Your task to perform on an android device: What's on my calendar tomorrow? Image 0: 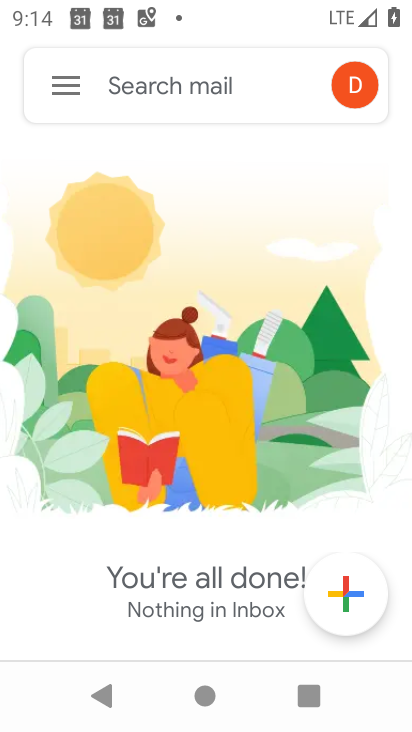
Step 0: press home button
Your task to perform on an android device: What's on my calendar tomorrow? Image 1: 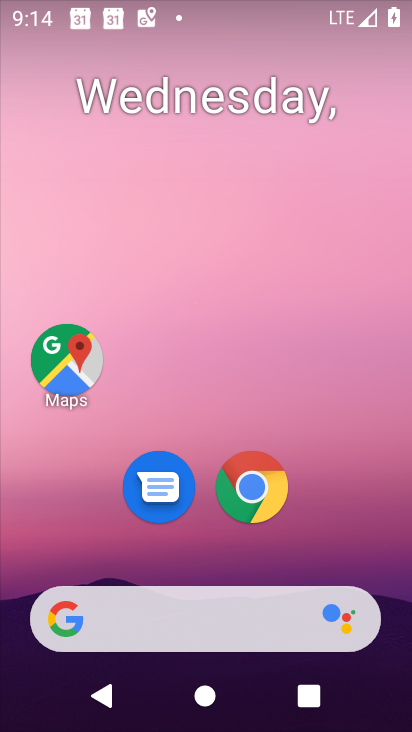
Step 1: drag from (247, 645) to (215, 387)
Your task to perform on an android device: What's on my calendar tomorrow? Image 2: 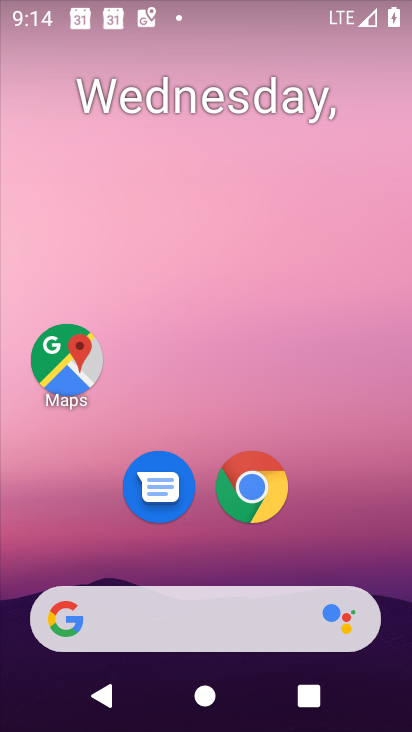
Step 2: drag from (236, 651) to (166, 259)
Your task to perform on an android device: What's on my calendar tomorrow? Image 3: 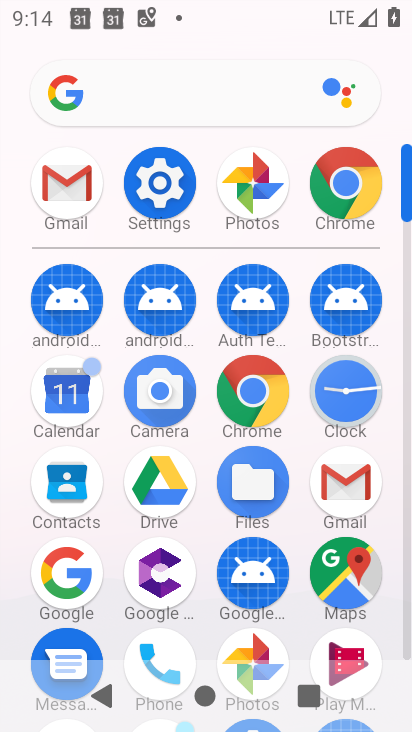
Step 3: click (84, 401)
Your task to perform on an android device: What's on my calendar tomorrow? Image 4: 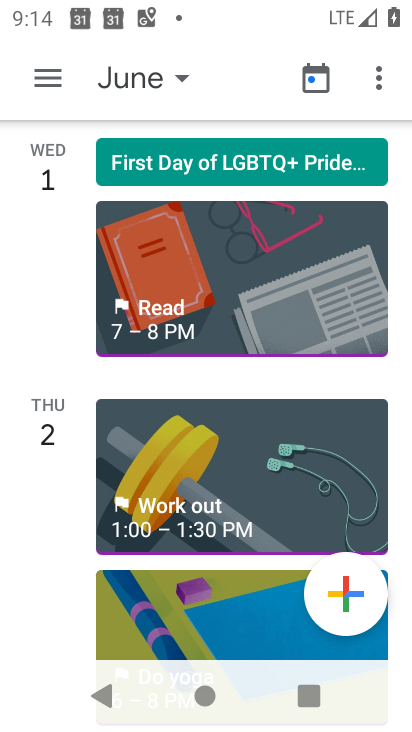
Step 4: click (43, 80)
Your task to perform on an android device: What's on my calendar tomorrow? Image 5: 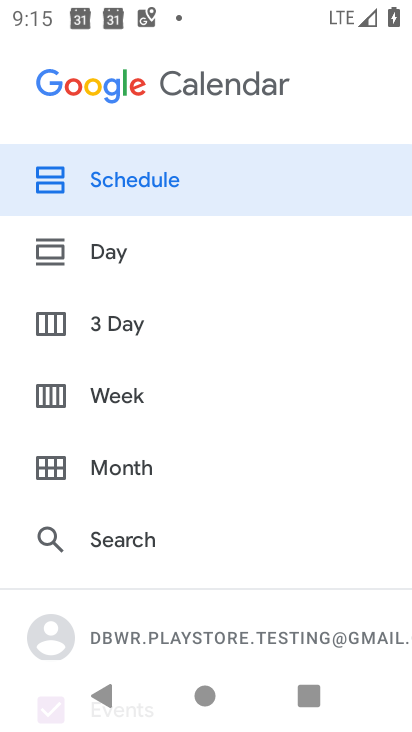
Step 5: click (130, 325)
Your task to perform on an android device: What's on my calendar tomorrow? Image 6: 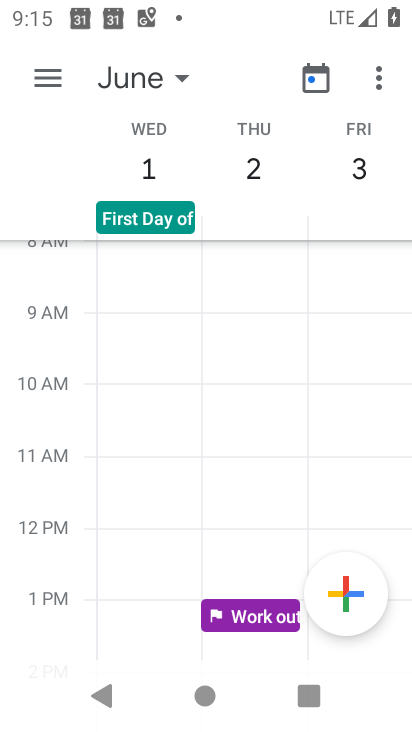
Step 6: click (252, 181)
Your task to perform on an android device: What's on my calendar tomorrow? Image 7: 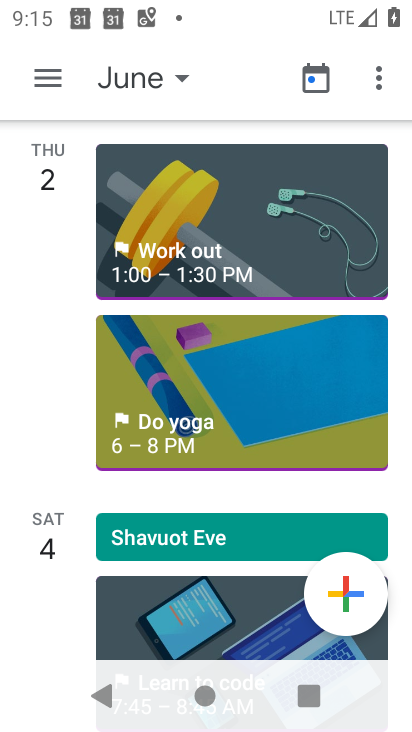
Step 7: task complete